Your task to perform on an android device: uninstall "Life360: Find Family & Friends" Image 0: 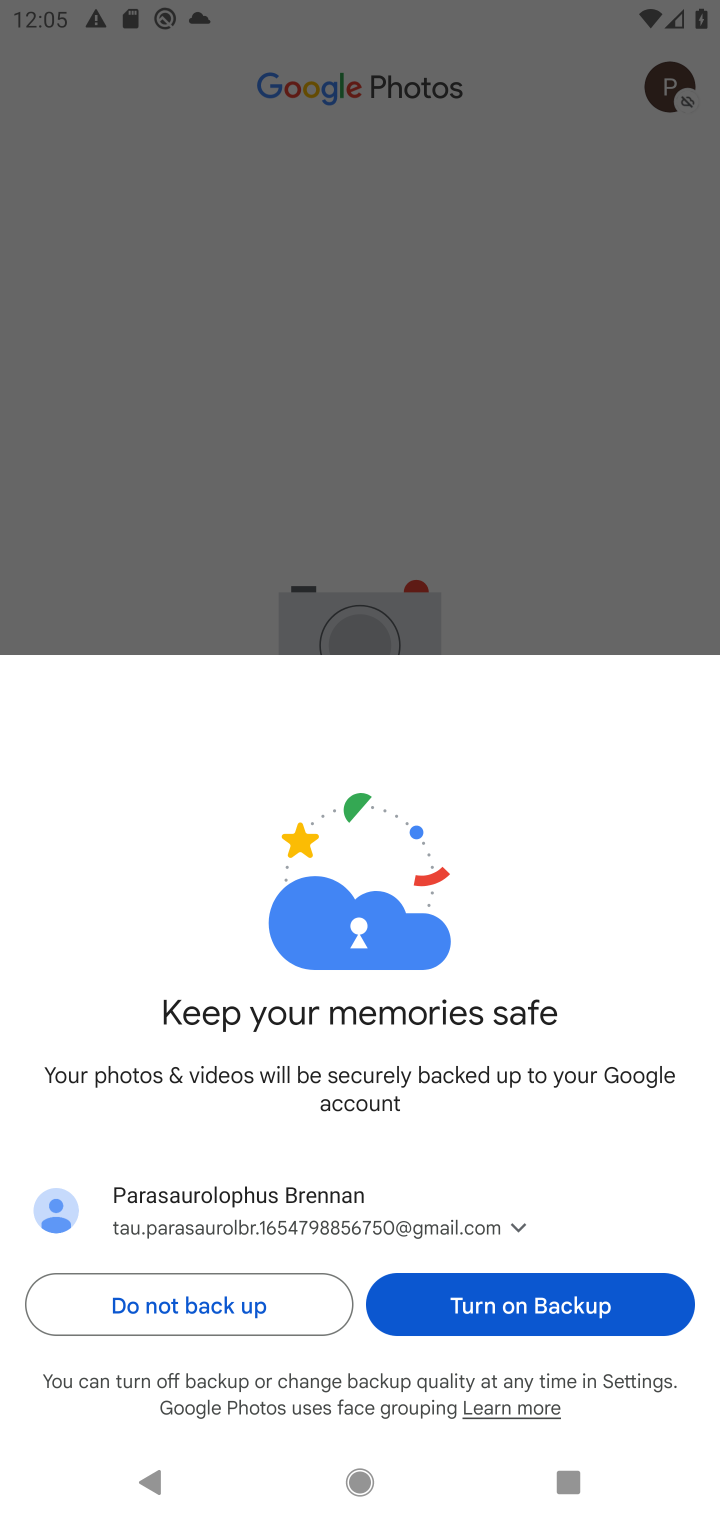
Step 0: press home button
Your task to perform on an android device: uninstall "Life360: Find Family & Friends" Image 1: 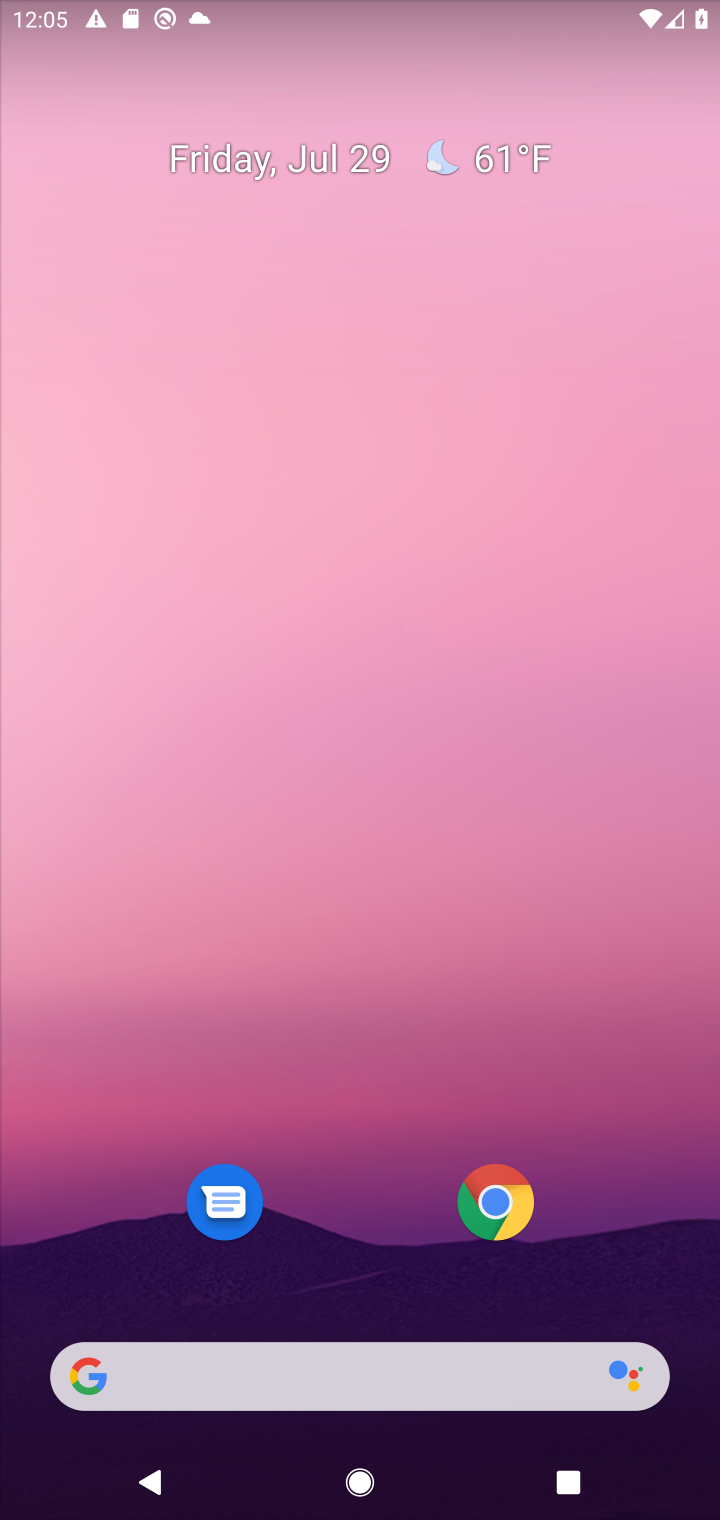
Step 1: click (344, 1359)
Your task to perform on an android device: uninstall "Life360: Find Family & Friends" Image 2: 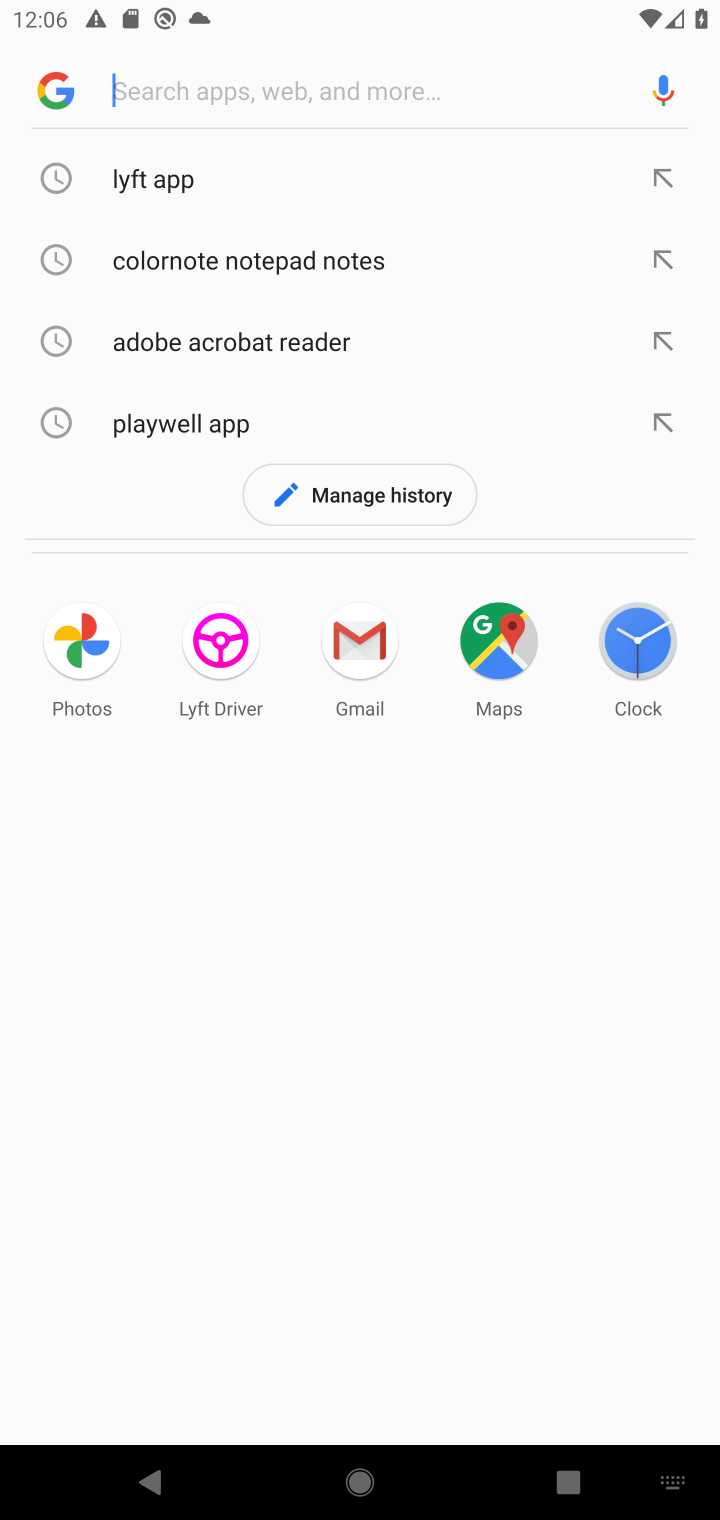
Step 2: type "life 360"
Your task to perform on an android device: uninstall "Life360: Find Family & Friends" Image 3: 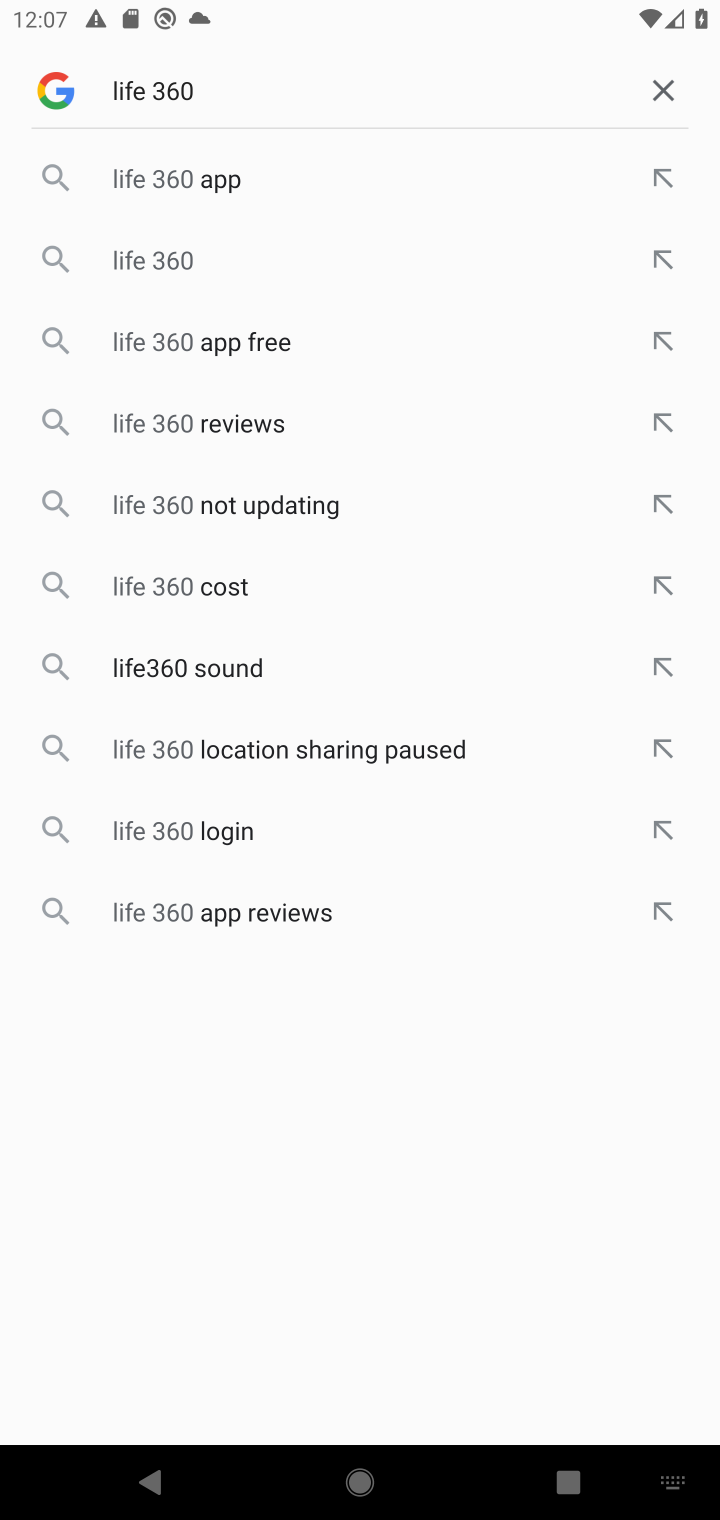
Step 3: click (425, 196)
Your task to perform on an android device: uninstall "Life360: Find Family & Friends" Image 4: 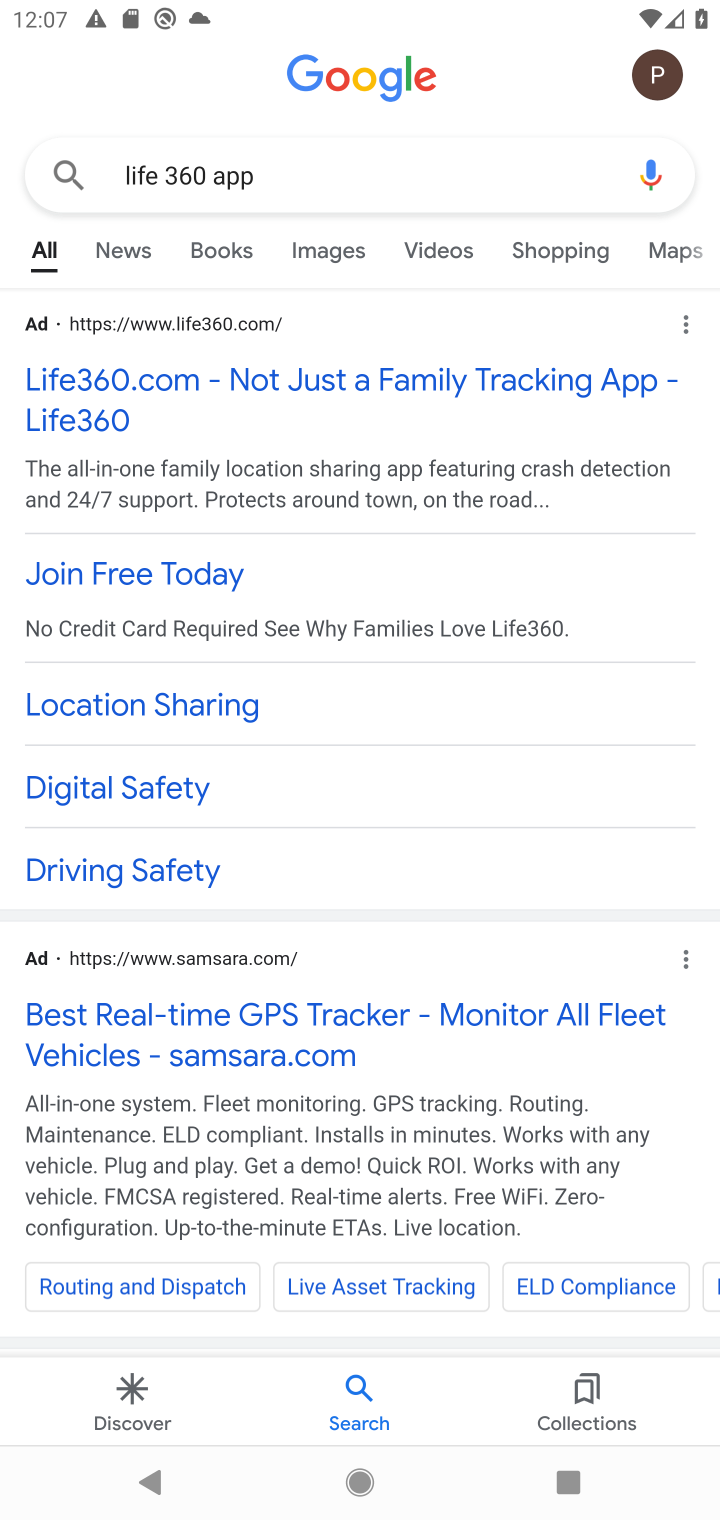
Step 4: task complete